Your task to perform on an android device: move an email to a new category in the gmail app Image 0: 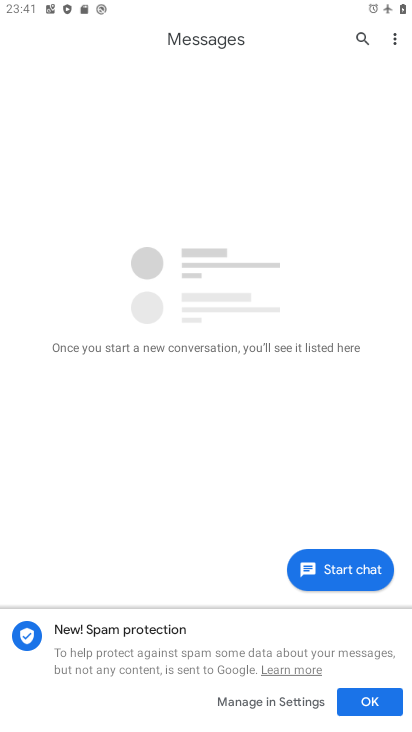
Step 0: press home button
Your task to perform on an android device: move an email to a new category in the gmail app Image 1: 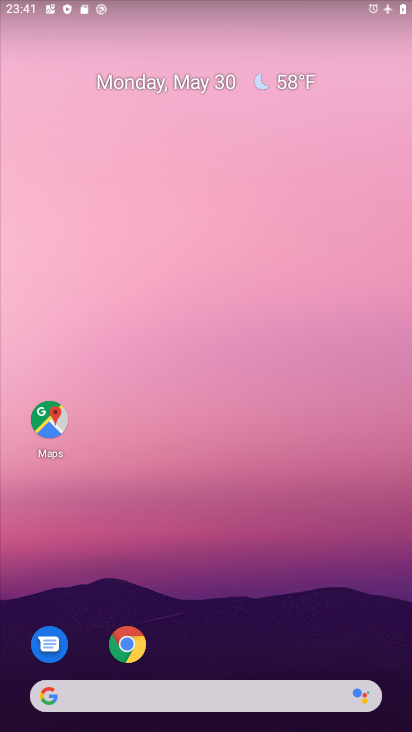
Step 1: drag from (288, 626) to (250, 174)
Your task to perform on an android device: move an email to a new category in the gmail app Image 2: 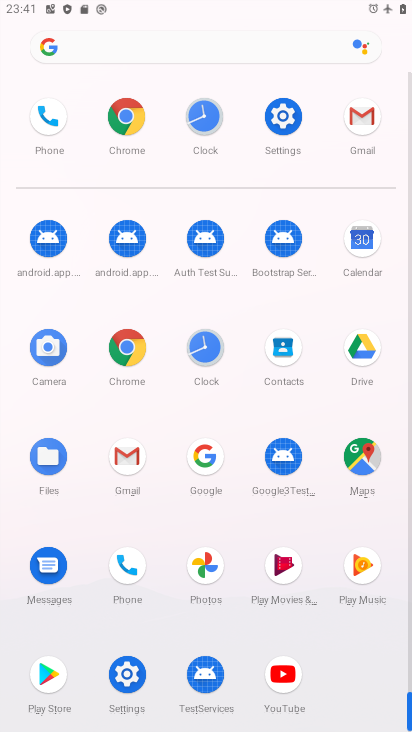
Step 2: click (124, 451)
Your task to perform on an android device: move an email to a new category in the gmail app Image 3: 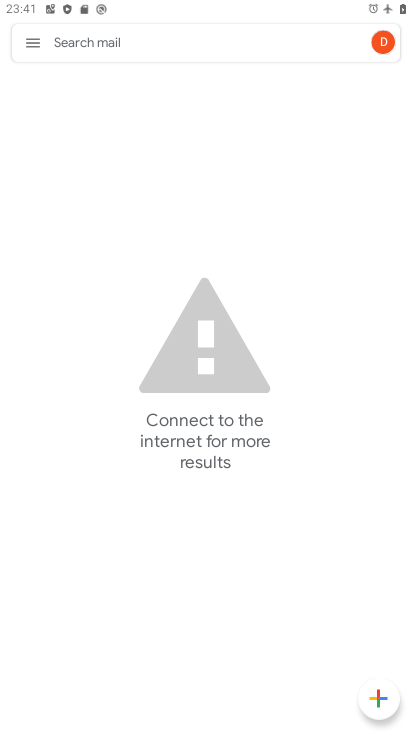
Step 3: click (30, 46)
Your task to perform on an android device: move an email to a new category in the gmail app Image 4: 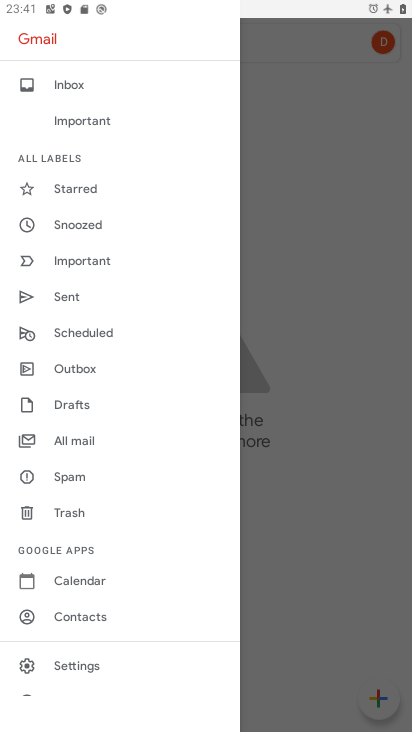
Step 4: click (84, 433)
Your task to perform on an android device: move an email to a new category in the gmail app Image 5: 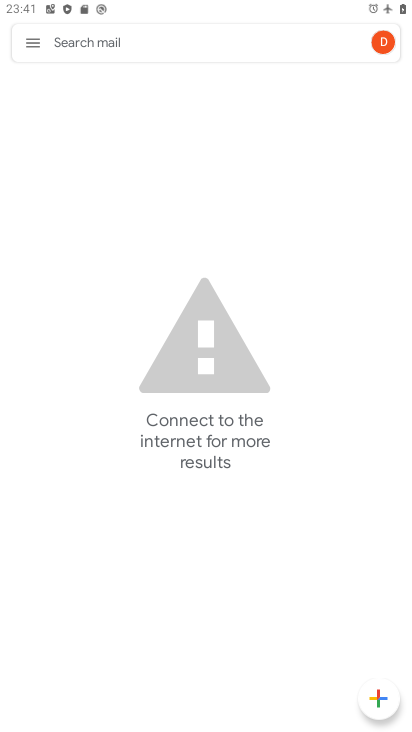
Step 5: task complete